Your task to perform on an android device: Open Android settings Image 0: 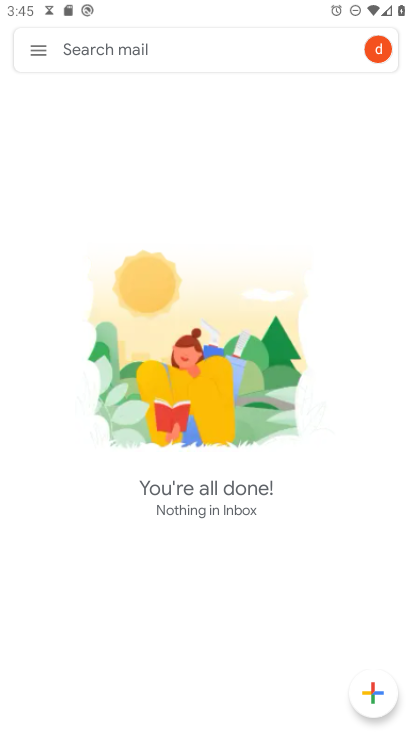
Step 0: press home button
Your task to perform on an android device: Open Android settings Image 1: 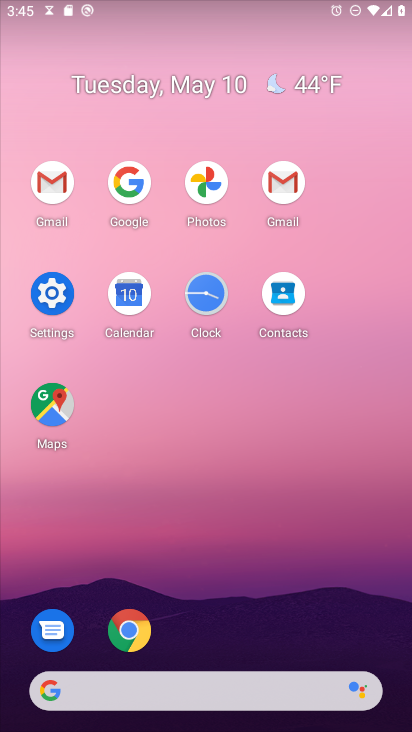
Step 1: click (47, 311)
Your task to perform on an android device: Open Android settings Image 2: 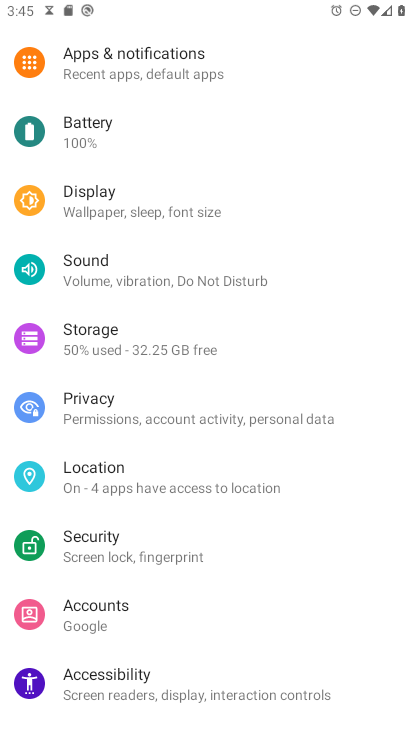
Step 2: task complete